Your task to perform on an android device: turn off location history Image 0: 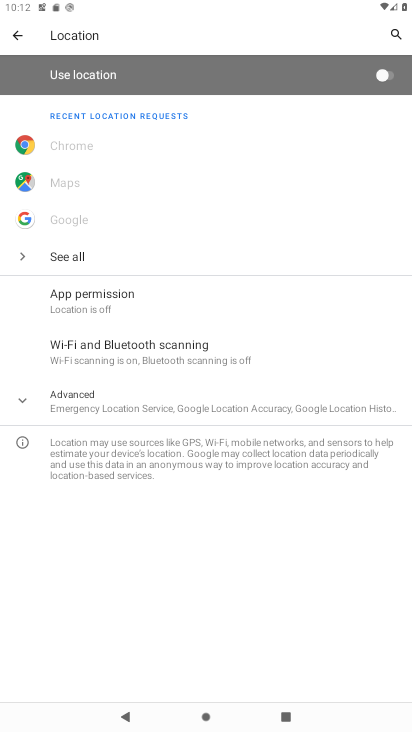
Step 0: click (85, 397)
Your task to perform on an android device: turn off location history Image 1: 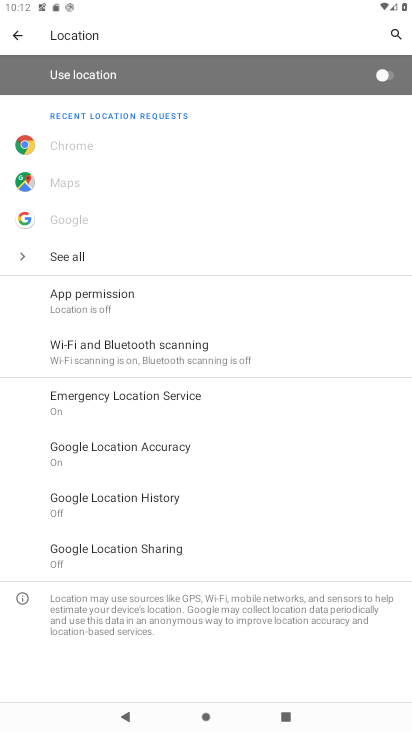
Step 1: click (138, 510)
Your task to perform on an android device: turn off location history Image 2: 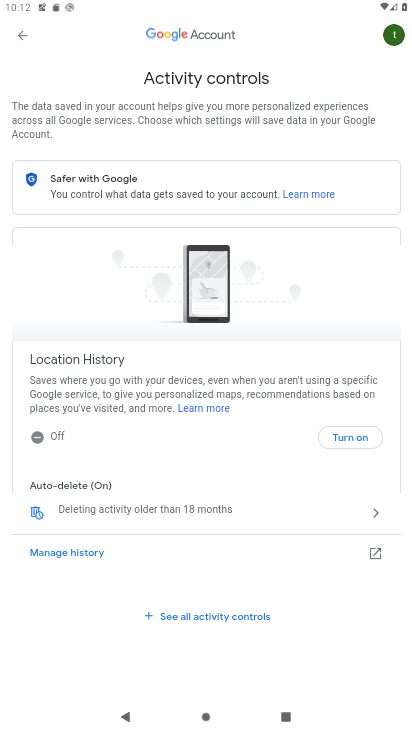
Step 2: task complete